Your task to perform on an android device: Is it going to rain today? Image 0: 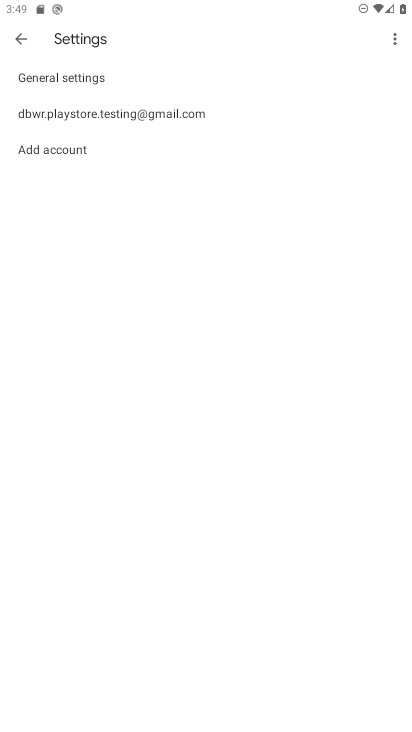
Step 0: press home button
Your task to perform on an android device: Is it going to rain today? Image 1: 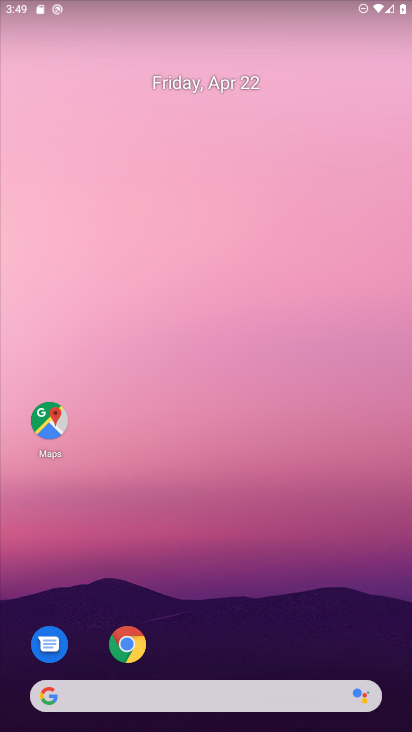
Step 1: drag from (248, 604) to (264, 140)
Your task to perform on an android device: Is it going to rain today? Image 2: 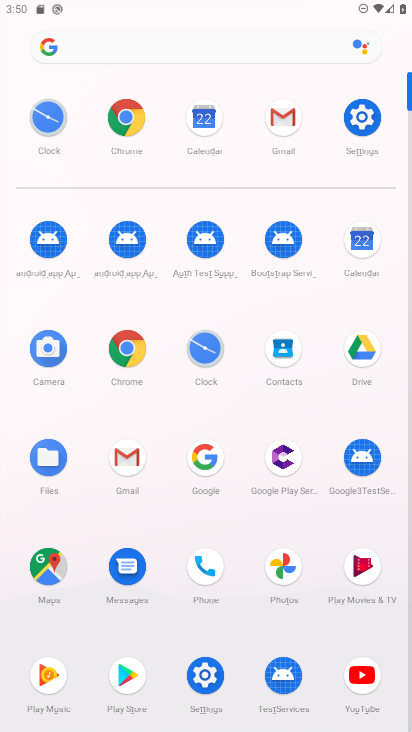
Step 2: click (135, 335)
Your task to perform on an android device: Is it going to rain today? Image 3: 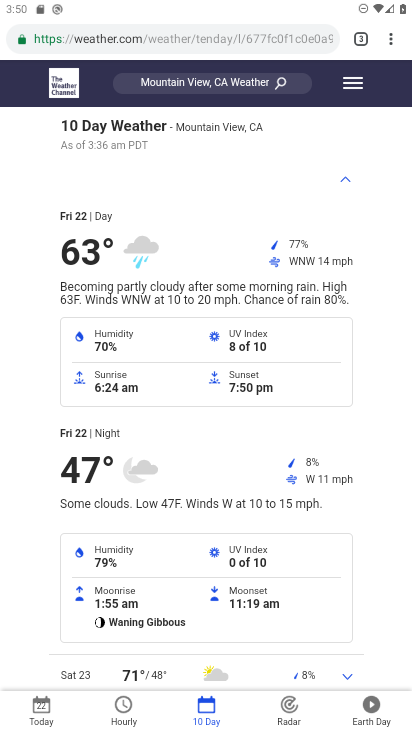
Step 3: task complete